Your task to perform on an android device: turn notification dots on Image 0: 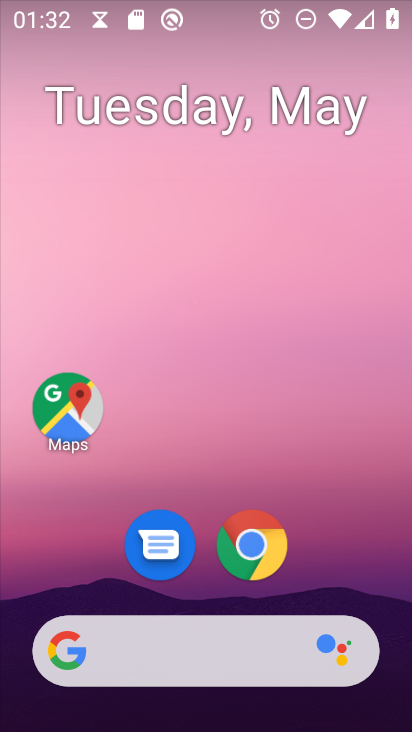
Step 0: drag from (345, 541) to (353, 62)
Your task to perform on an android device: turn notification dots on Image 1: 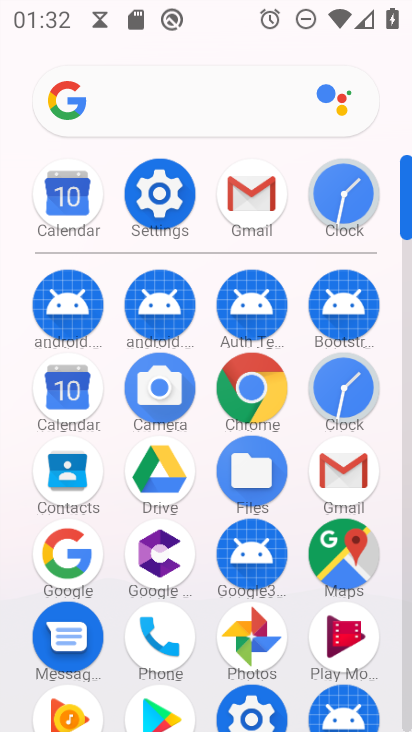
Step 1: click (165, 196)
Your task to perform on an android device: turn notification dots on Image 2: 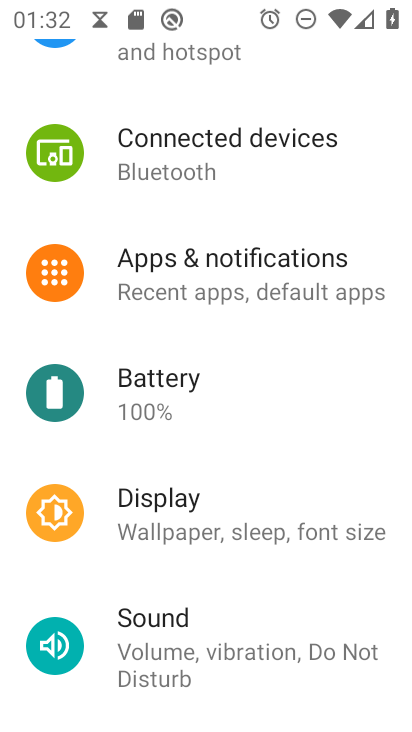
Step 2: click (214, 280)
Your task to perform on an android device: turn notification dots on Image 3: 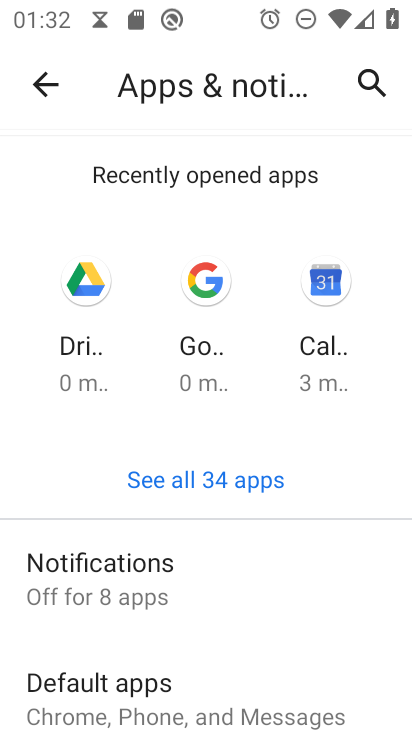
Step 3: click (213, 556)
Your task to perform on an android device: turn notification dots on Image 4: 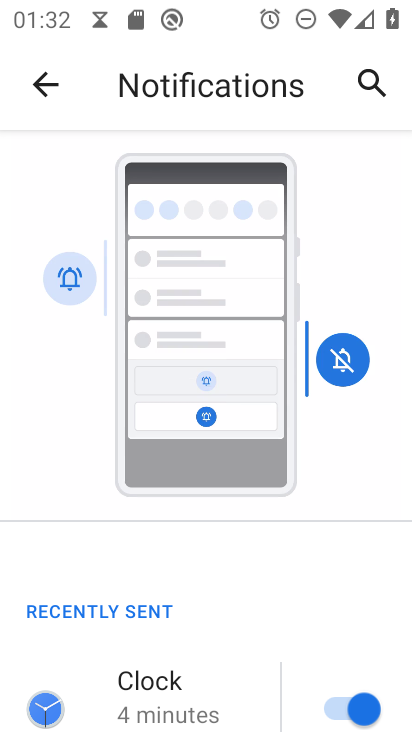
Step 4: drag from (161, 677) to (185, 360)
Your task to perform on an android device: turn notification dots on Image 5: 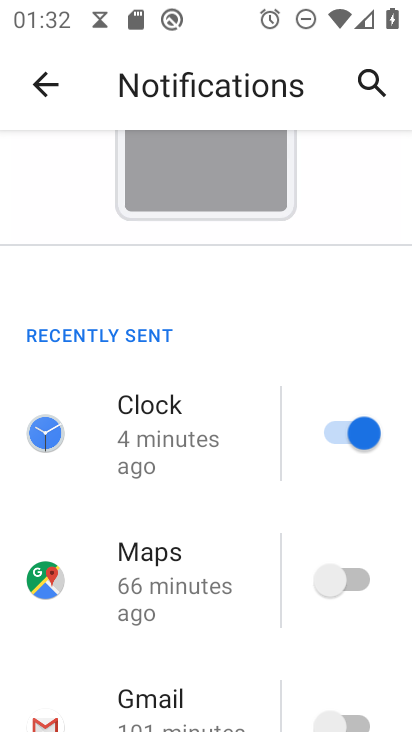
Step 5: drag from (171, 669) to (237, 342)
Your task to perform on an android device: turn notification dots on Image 6: 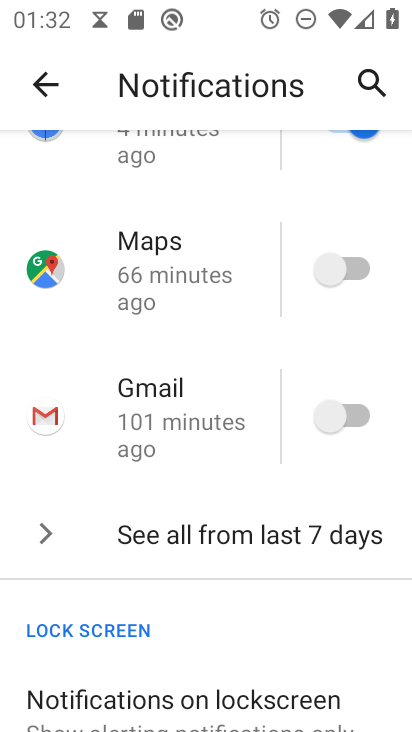
Step 6: drag from (191, 609) to (212, 342)
Your task to perform on an android device: turn notification dots on Image 7: 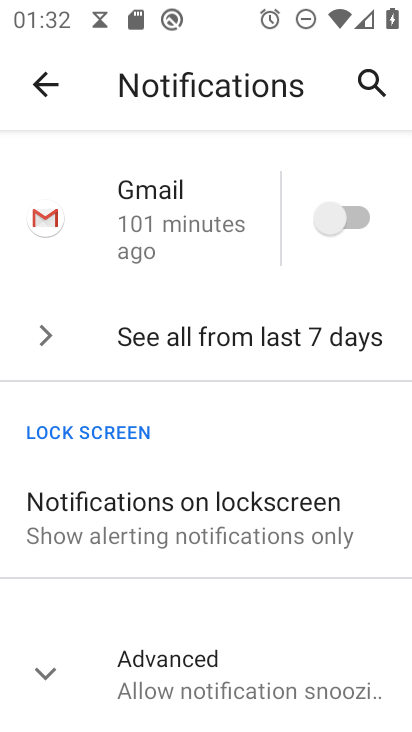
Step 7: click (222, 667)
Your task to perform on an android device: turn notification dots on Image 8: 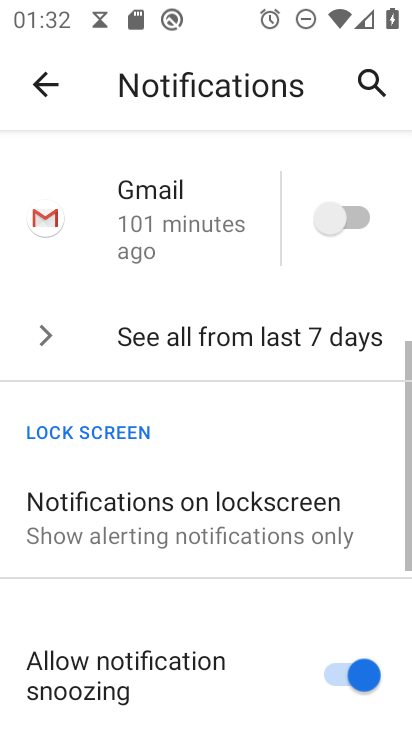
Step 8: drag from (222, 663) to (189, 396)
Your task to perform on an android device: turn notification dots on Image 9: 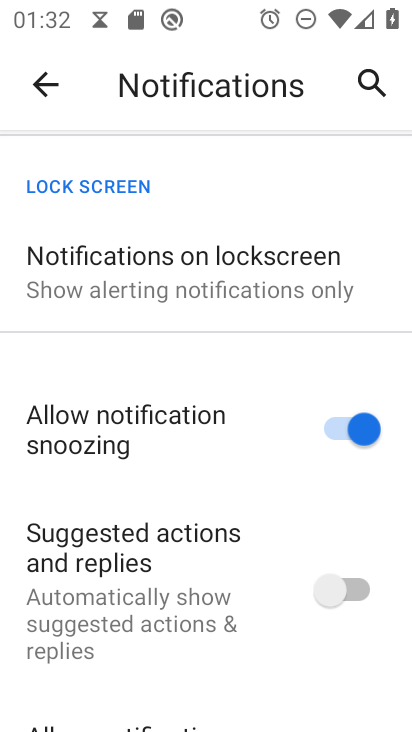
Step 9: drag from (217, 574) to (210, 315)
Your task to perform on an android device: turn notification dots on Image 10: 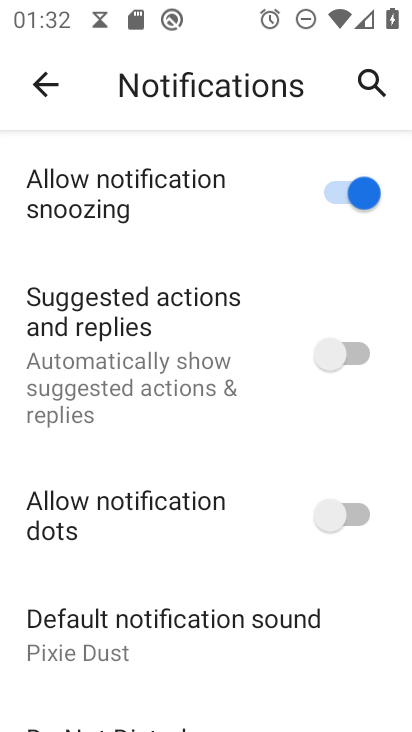
Step 10: click (325, 539)
Your task to perform on an android device: turn notification dots on Image 11: 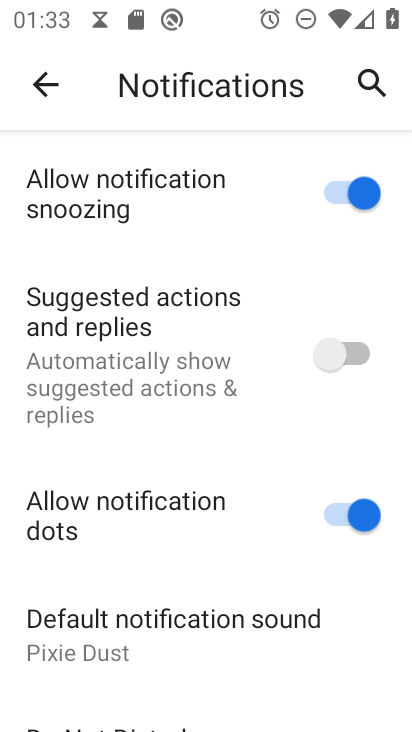
Step 11: task complete